Your task to perform on an android device: empty trash in google photos Image 0: 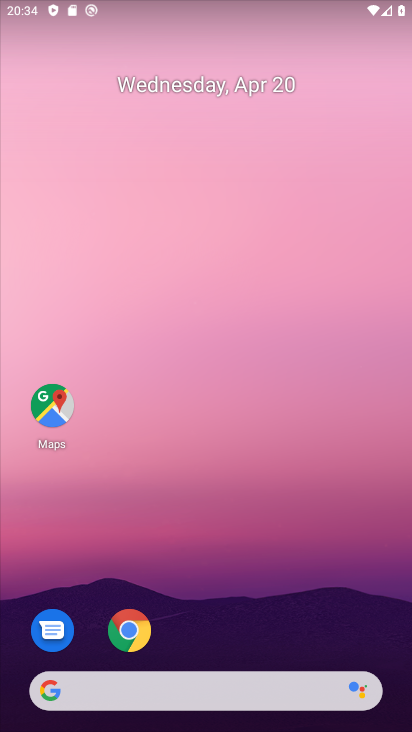
Step 0: drag from (284, 605) to (264, 81)
Your task to perform on an android device: empty trash in google photos Image 1: 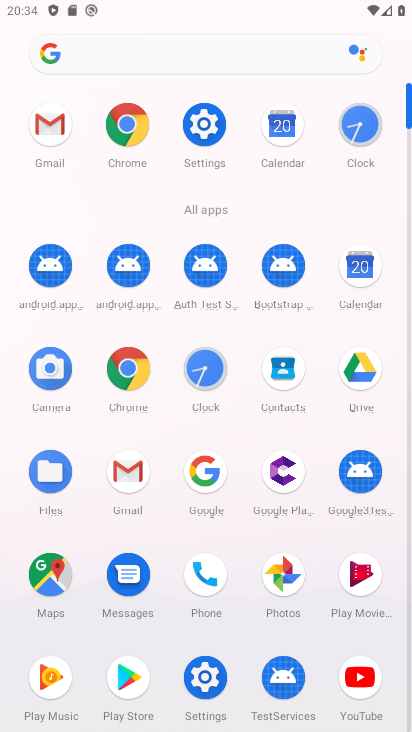
Step 1: click (288, 562)
Your task to perform on an android device: empty trash in google photos Image 2: 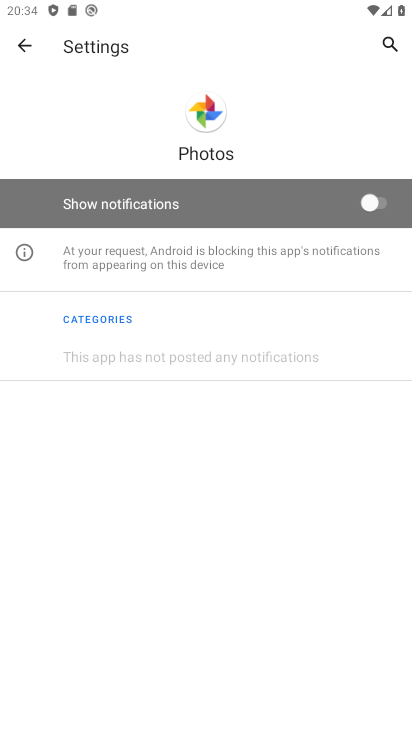
Step 2: click (22, 38)
Your task to perform on an android device: empty trash in google photos Image 3: 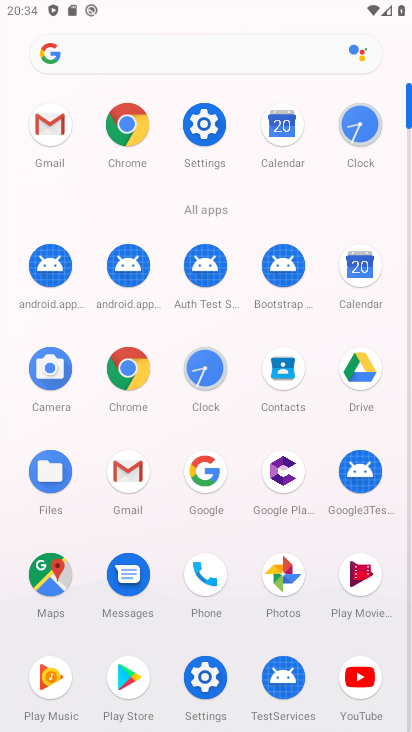
Step 3: click (280, 573)
Your task to perform on an android device: empty trash in google photos Image 4: 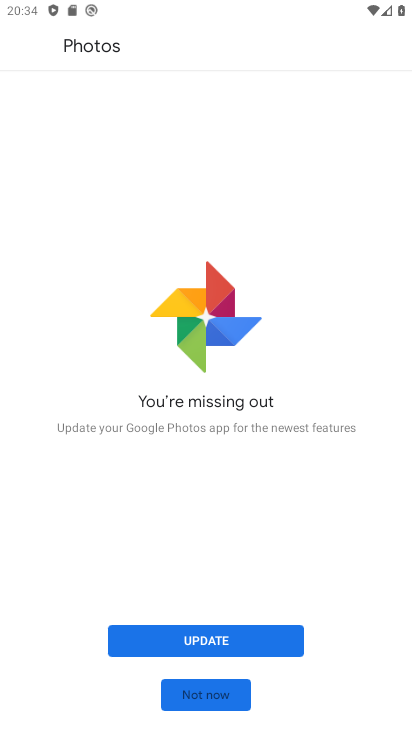
Step 4: click (235, 642)
Your task to perform on an android device: empty trash in google photos Image 5: 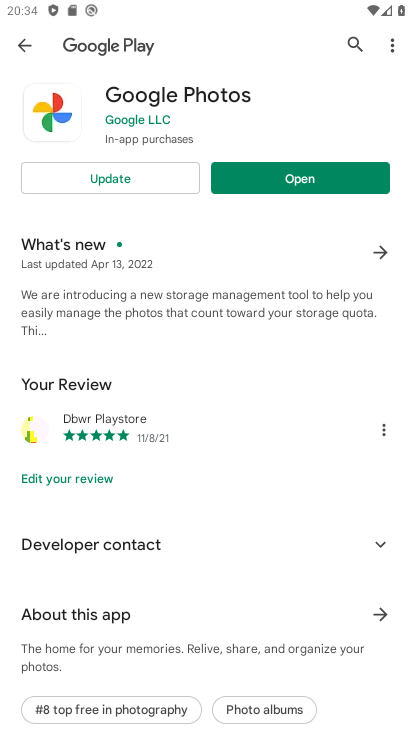
Step 5: click (145, 177)
Your task to perform on an android device: empty trash in google photos Image 6: 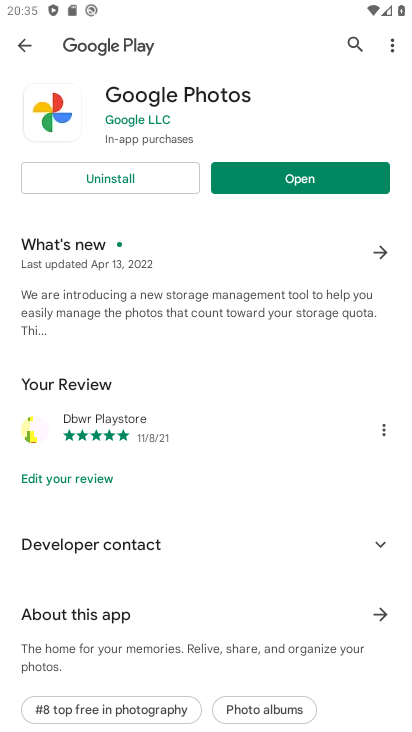
Step 6: click (332, 185)
Your task to perform on an android device: empty trash in google photos Image 7: 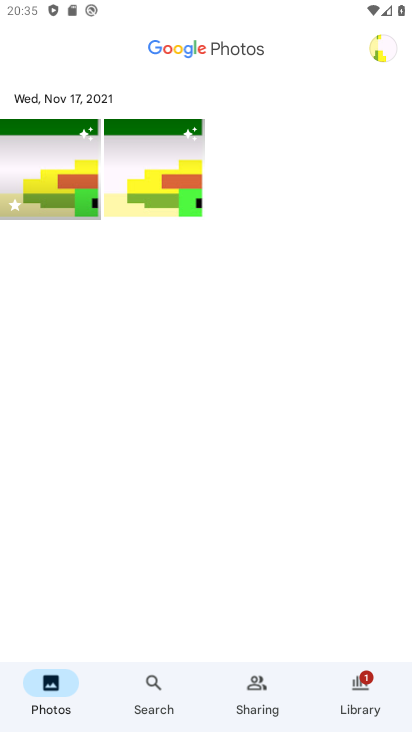
Step 7: click (363, 682)
Your task to perform on an android device: empty trash in google photos Image 8: 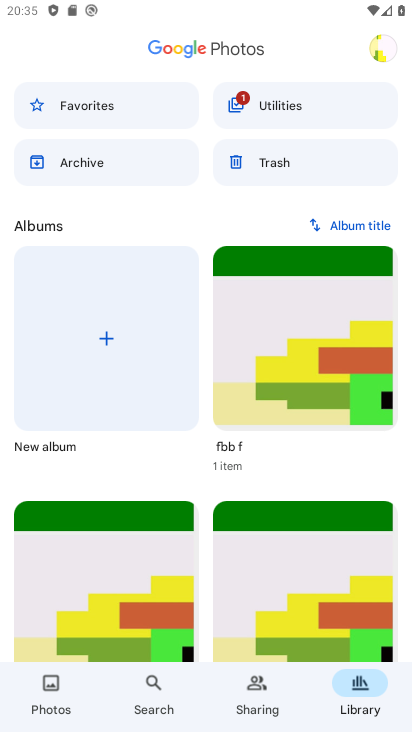
Step 8: click (281, 160)
Your task to perform on an android device: empty trash in google photos Image 9: 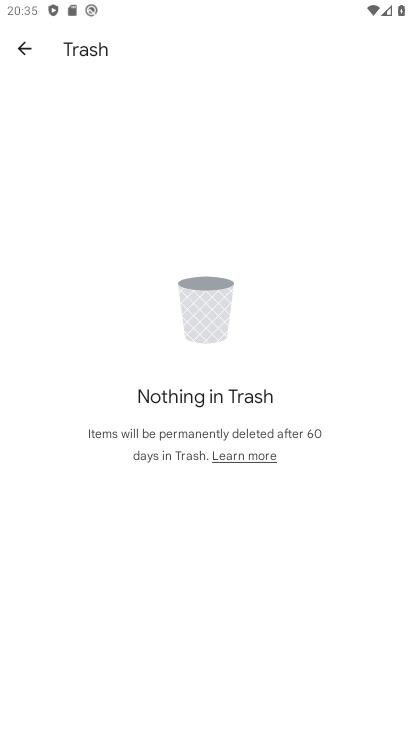
Step 9: task complete